Your task to perform on an android device: turn vacation reply on in the gmail app Image 0: 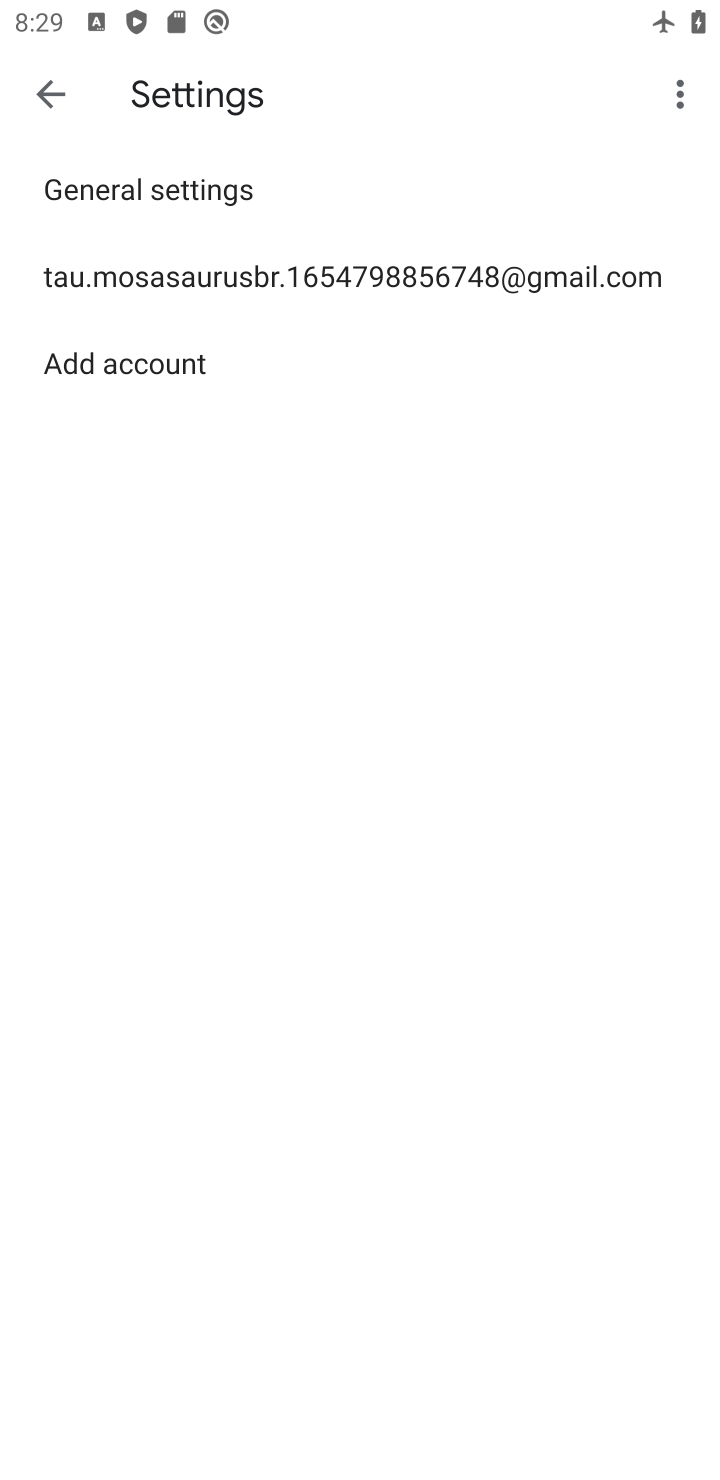
Step 0: click (485, 264)
Your task to perform on an android device: turn vacation reply on in the gmail app Image 1: 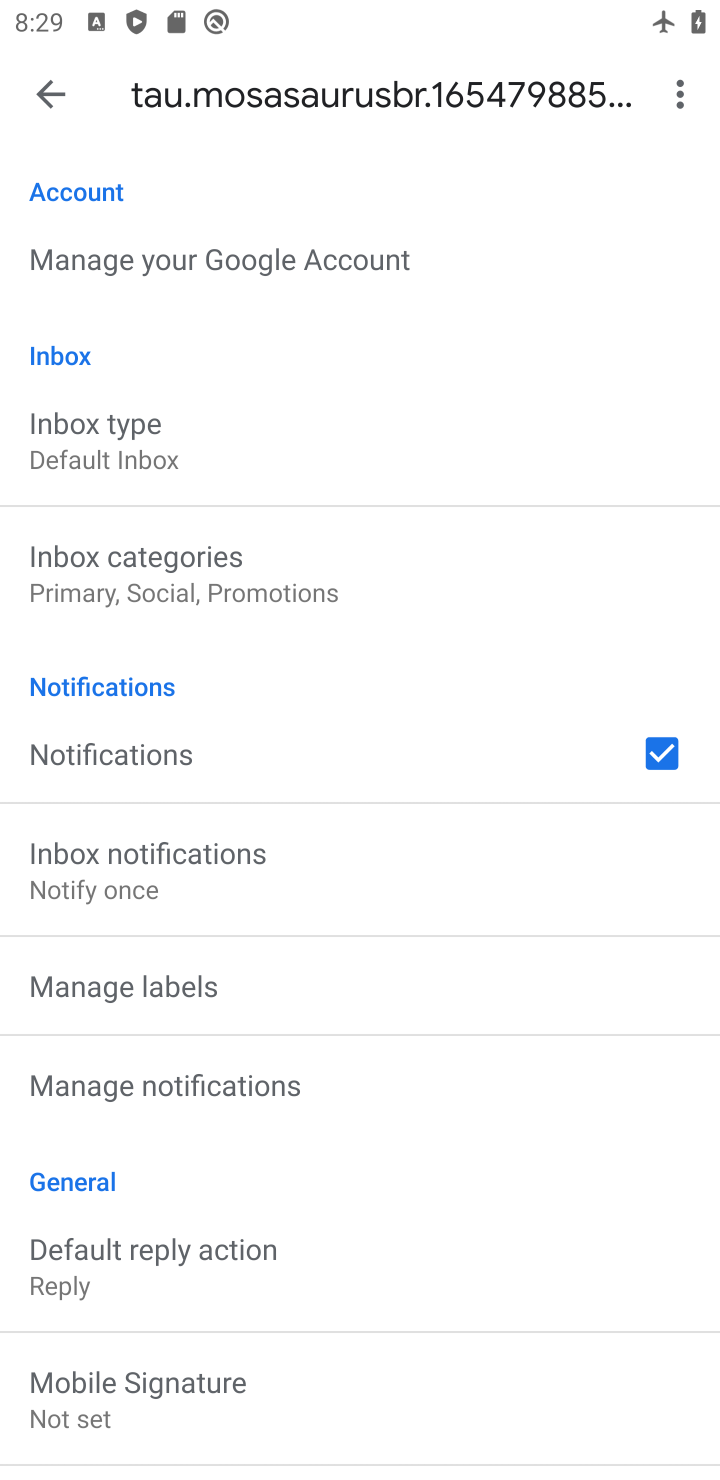
Step 1: drag from (447, 1220) to (479, 579)
Your task to perform on an android device: turn vacation reply on in the gmail app Image 2: 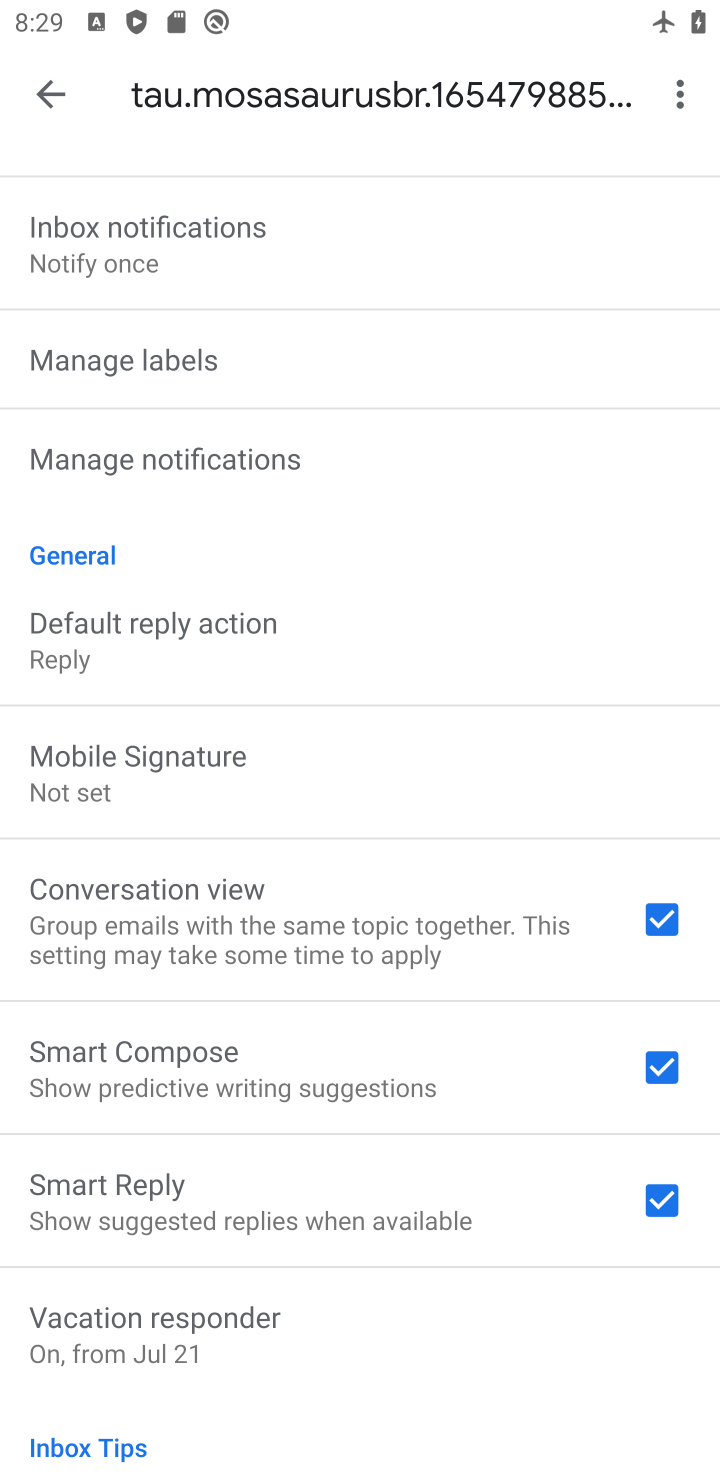
Step 2: click (113, 1347)
Your task to perform on an android device: turn vacation reply on in the gmail app Image 3: 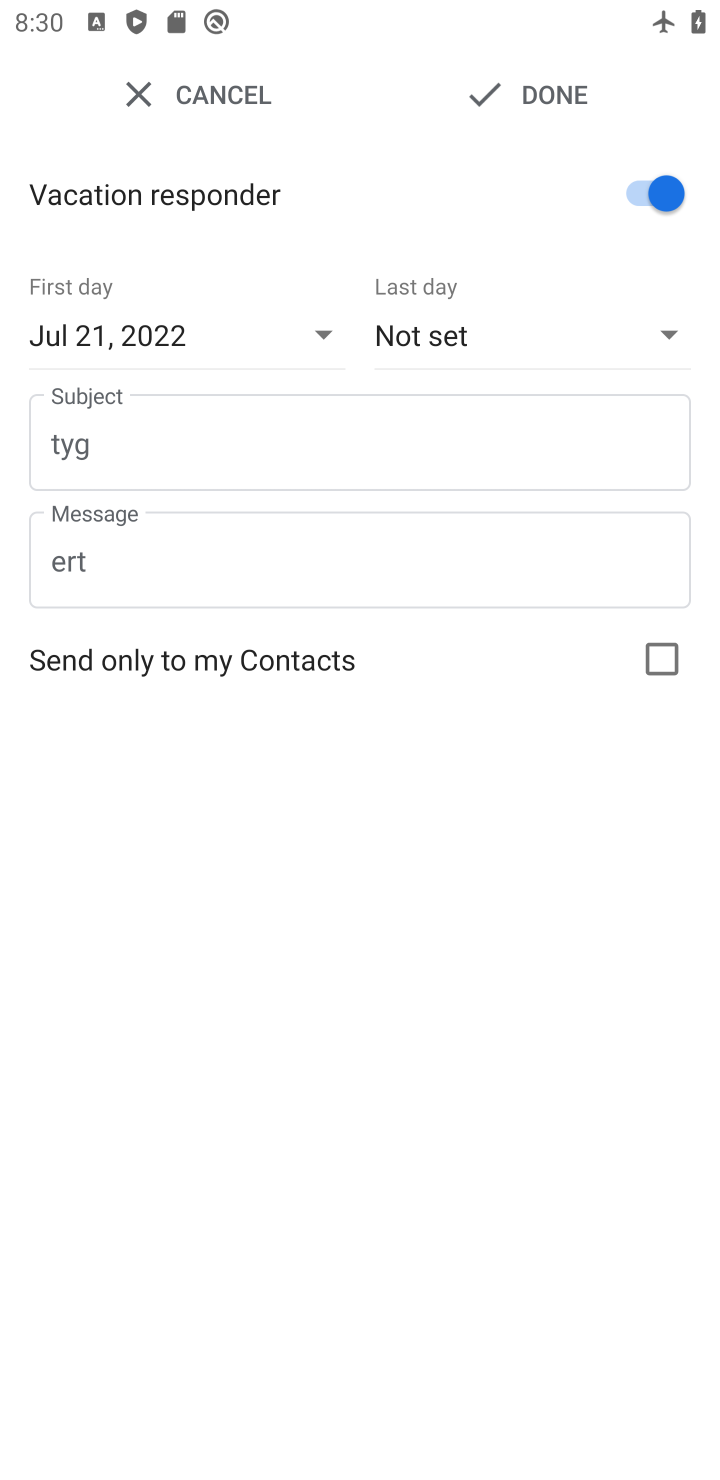
Step 3: task complete